Your task to perform on an android device: stop showing notifications on the lock screen Image 0: 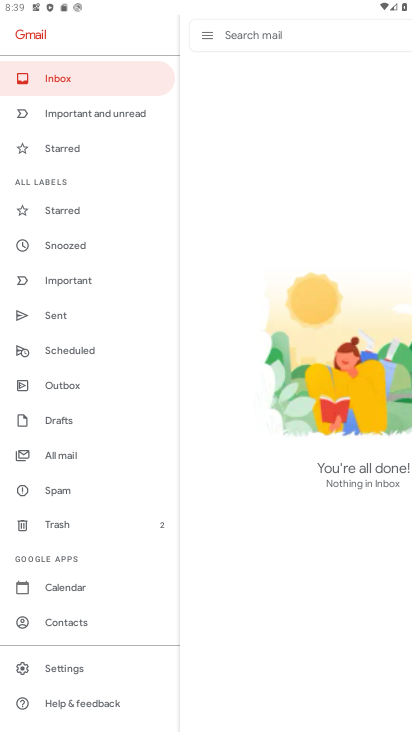
Step 0: press home button
Your task to perform on an android device: stop showing notifications on the lock screen Image 1: 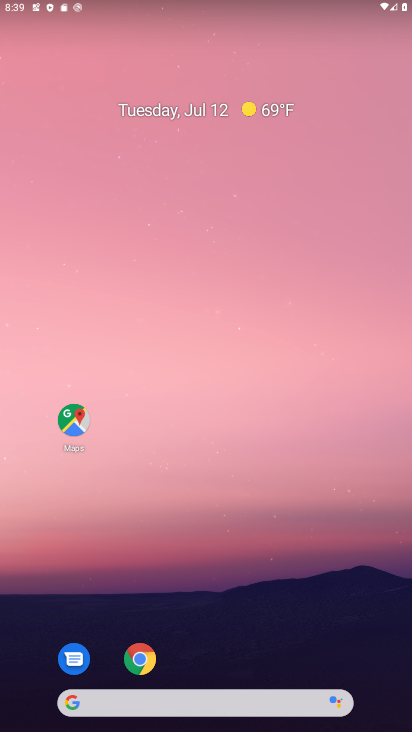
Step 1: drag from (232, 695) to (231, 198)
Your task to perform on an android device: stop showing notifications on the lock screen Image 2: 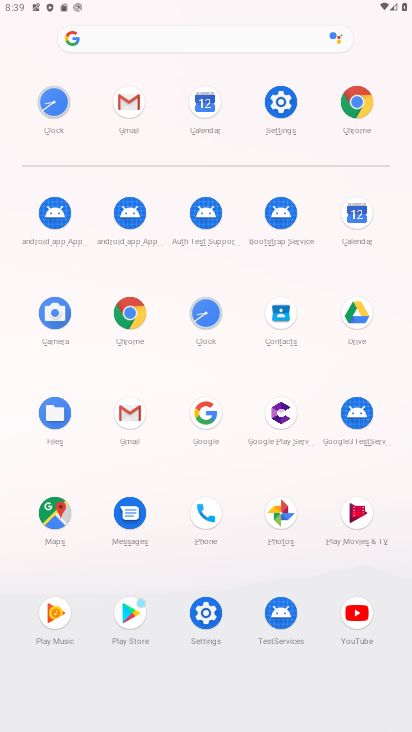
Step 2: click (280, 104)
Your task to perform on an android device: stop showing notifications on the lock screen Image 3: 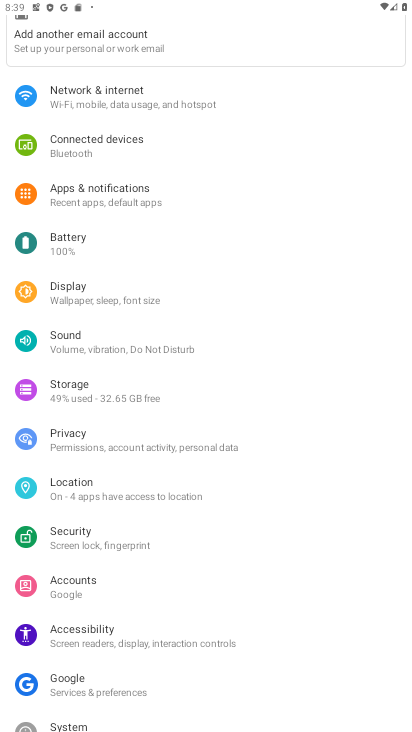
Step 3: click (122, 196)
Your task to perform on an android device: stop showing notifications on the lock screen Image 4: 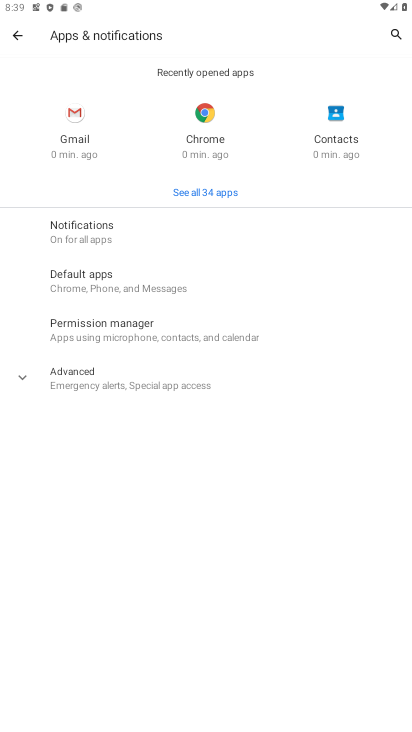
Step 4: click (82, 235)
Your task to perform on an android device: stop showing notifications on the lock screen Image 5: 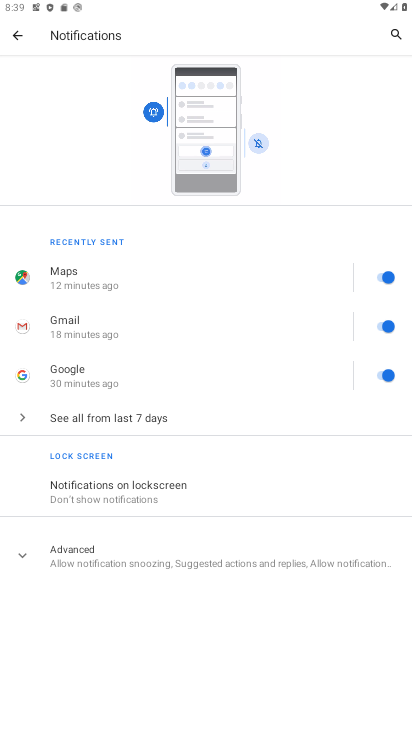
Step 5: click (131, 495)
Your task to perform on an android device: stop showing notifications on the lock screen Image 6: 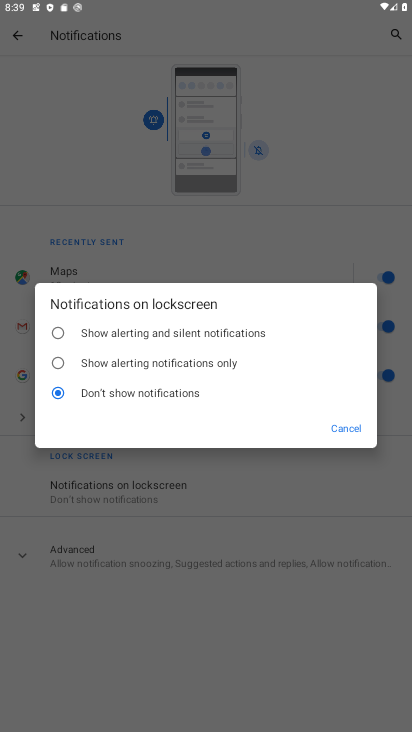
Step 6: click (342, 428)
Your task to perform on an android device: stop showing notifications on the lock screen Image 7: 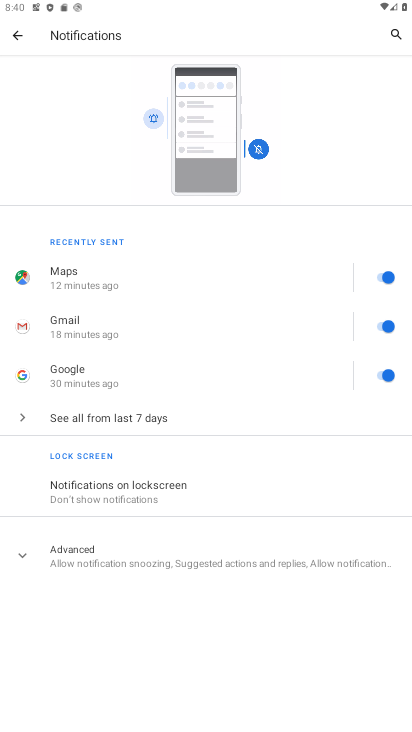
Step 7: task complete